Your task to perform on an android device: Open Wikipedia Image 0: 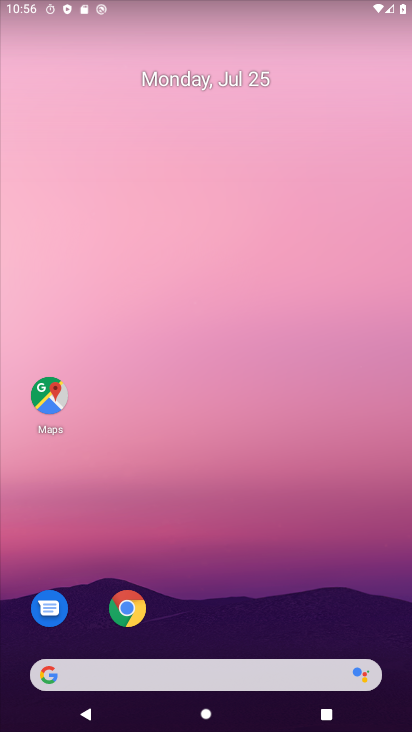
Step 0: click (299, 44)
Your task to perform on an android device: Open Wikipedia Image 1: 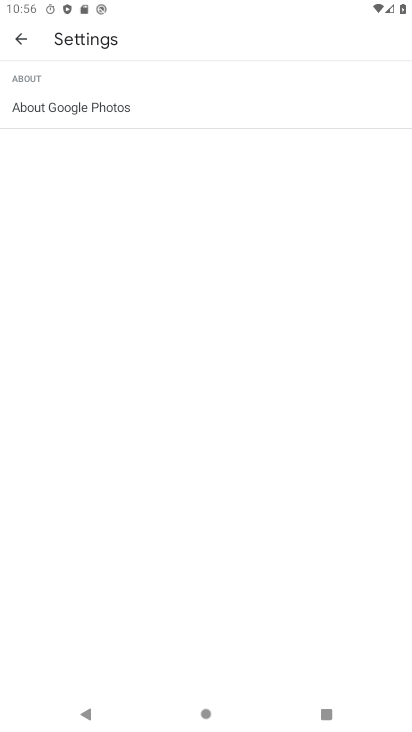
Step 1: press home button
Your task to perform on an android device: Open Wikipedia Image 2: 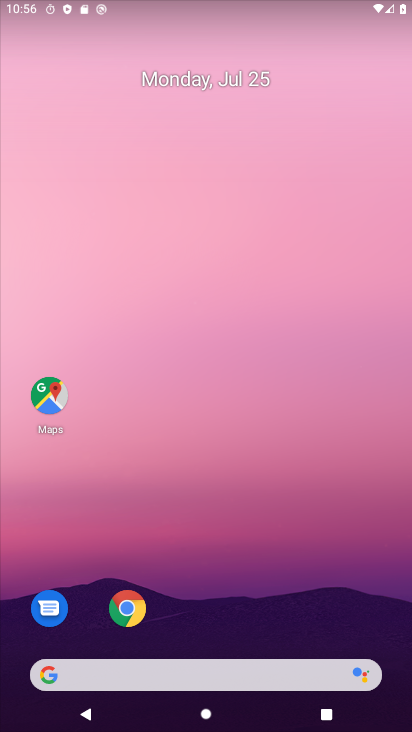
Step 2: drag from (251, 611) to (264, 92)
Your task to perform on an android device: Open Wikipedia Image 3: 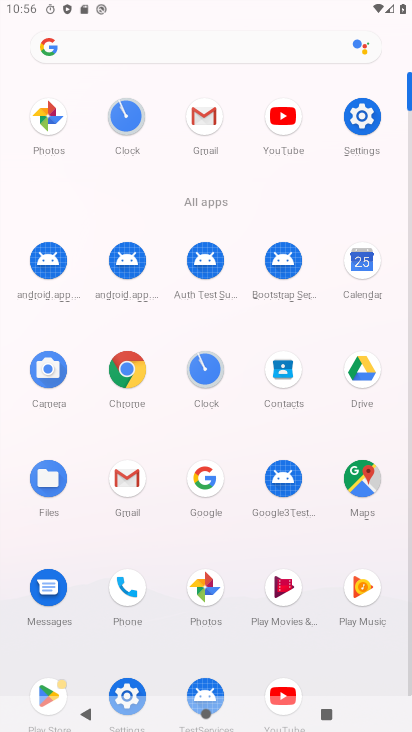
Step 3: click (126, 372)
Your task to perform on an android device: Open Wikipedia Image 4: 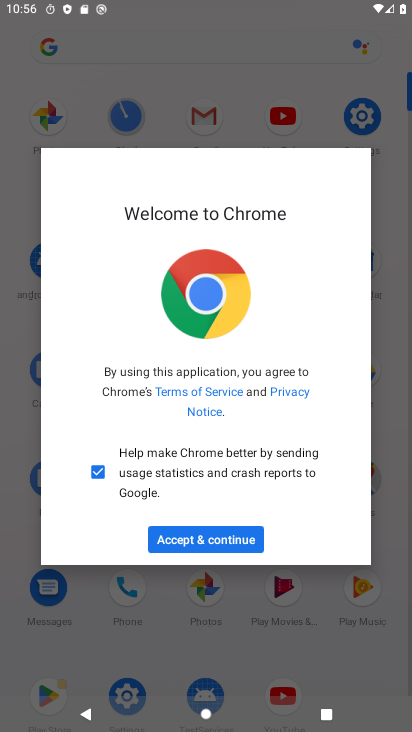
Step 4: click (165, 543)
Your task to perform on an android device: Open Wikipedia Image 5: 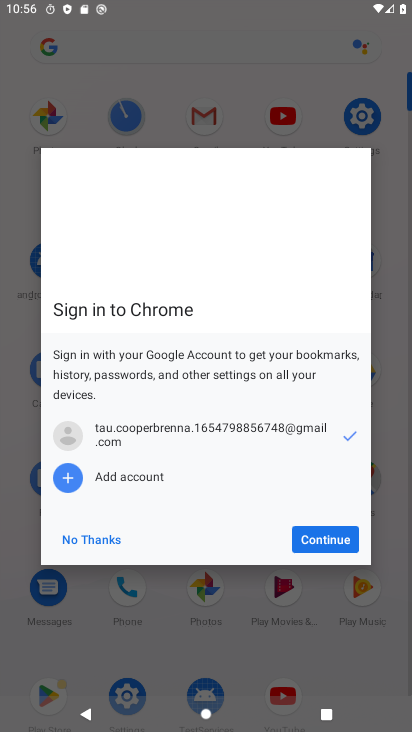
Step 5: click (92, 538)
Your task to perform on an android device: Open Wikipedia Image 6: 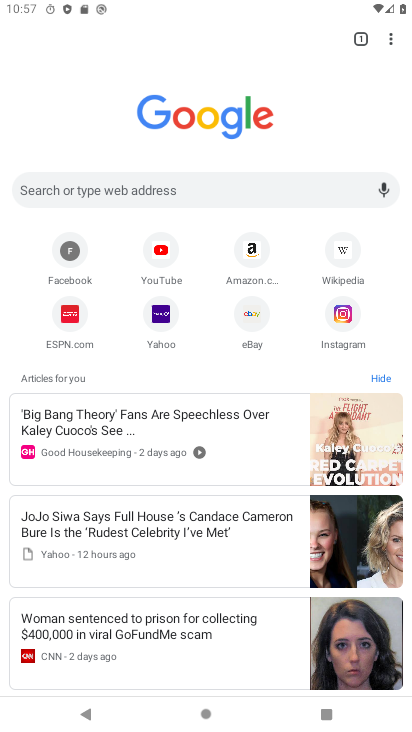
Step 6: click (351, 262)
Your task to perform on an android device: Open Wikipedia Image 7: 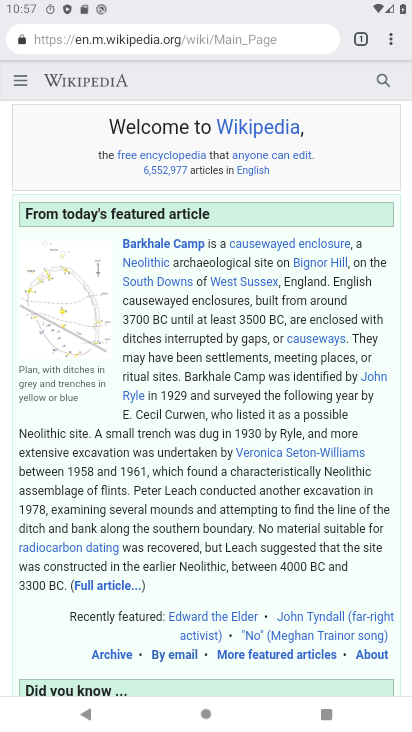
Step 7: task complete